Your task to perform on an android device: Open ESPN.com Image 0: 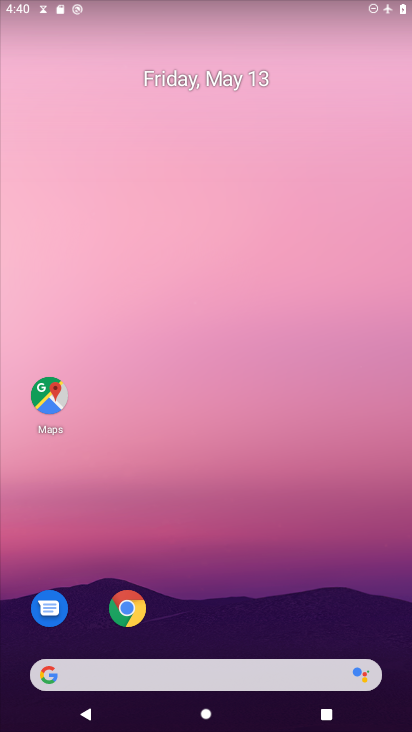
Step 0: drag from (255, 674) to (308, 4)
Your task to perform on an android device: Open ESPN.com Image 1: 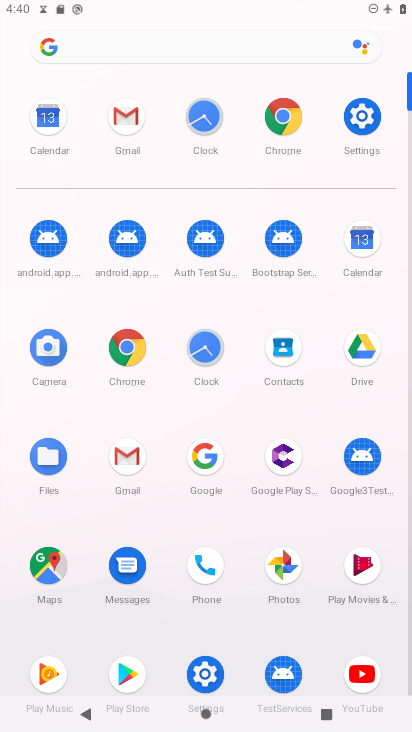
Step 1: click (125, 350)
Your task to perform on an android device: Open ESPN.com Image 2: 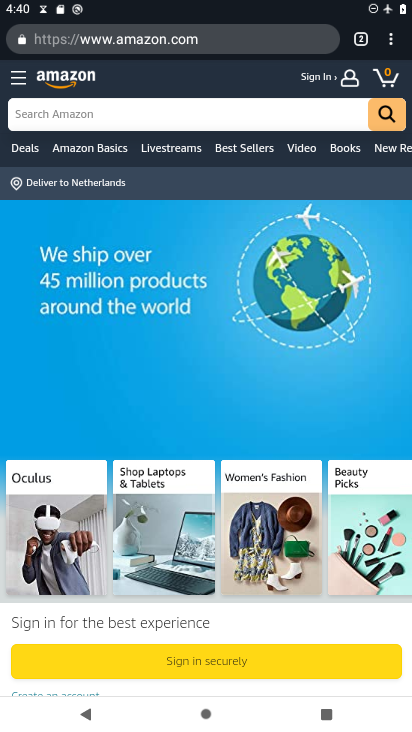
Step 2: click (247, 43)
Your task to perform on an android device: Open ESPN.com Image 3: 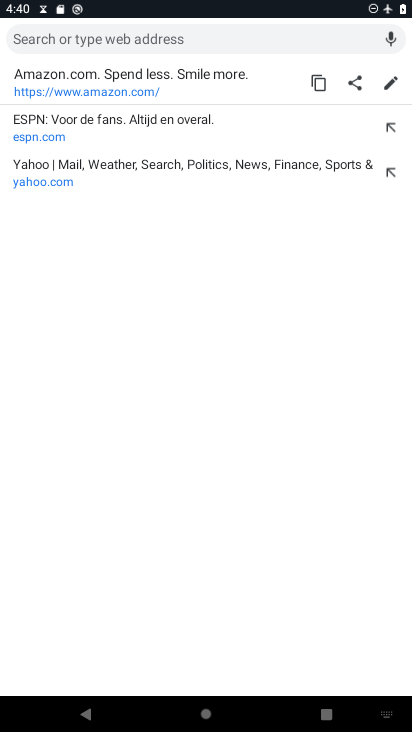
Step 3: type "espn.com"
Your task to perform on an android device: Open ESPN.com Image 4: 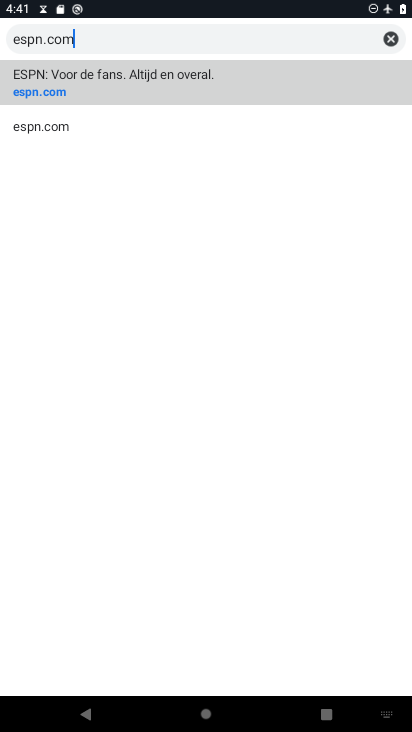
Step 4: click (167, 73)
Your task to perform on an android device: Open ESPN.com Image 5: 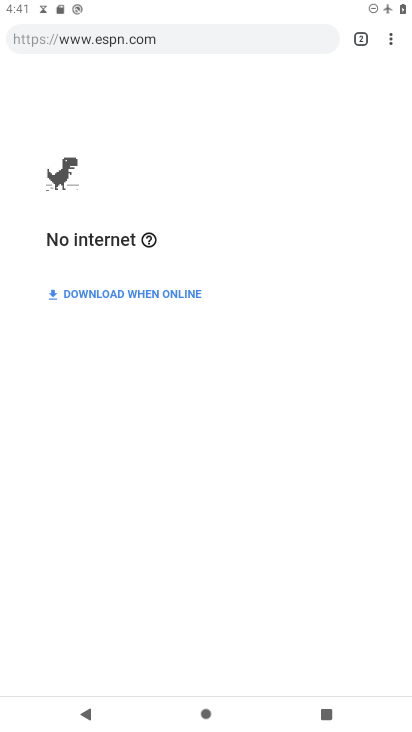
Step 5: task complete